Your task to perform on an android device: What's the weather today? Image 0: 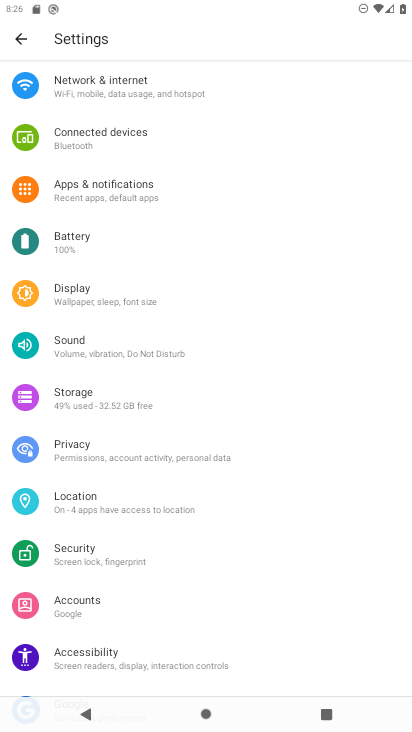
Step 0: press home button
Your task to perform on an android device: What's the weather today? Image 1: 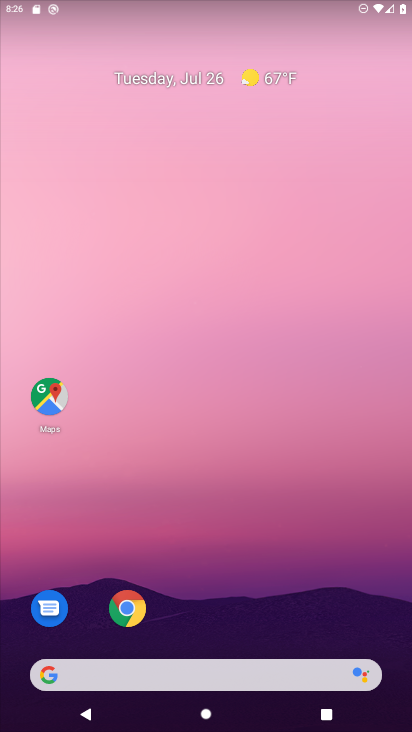
Step 1: click (181, 672)
Your task to perform on an android device: What's the weather today? Image 2: 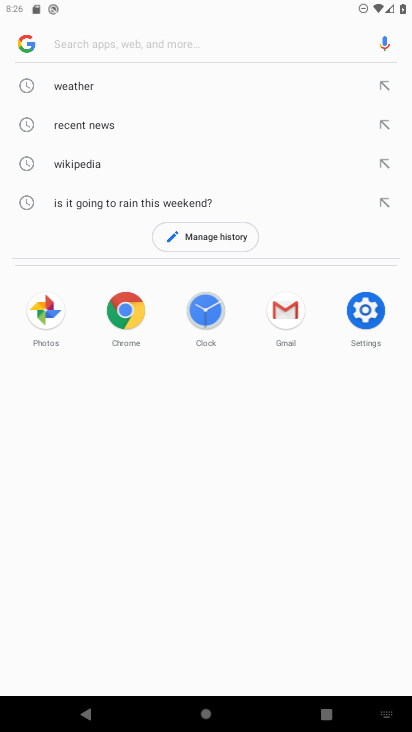
Step 2: click (88, 78)
Your task to perform on an android device: What's the weather today? Image 3: 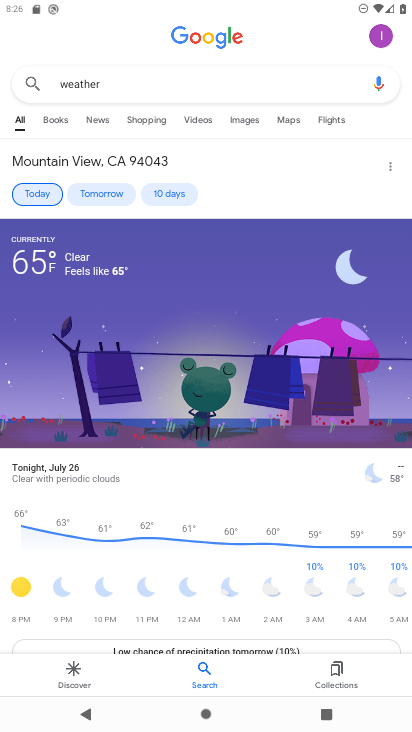
Step 3: task complete